Your task to perform on an android device: Open Chrome and go to the settings page Image 0: 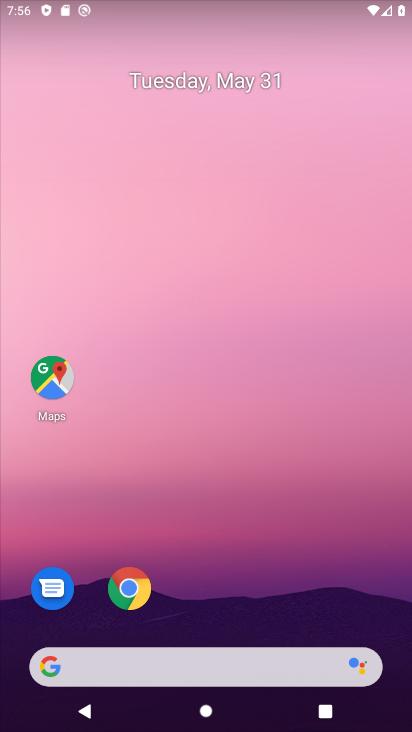
Step 0: drag from (243, 509) to (256, 165)
Your task to perform on an android device: Open Chrome and go to the settings page Image 1: 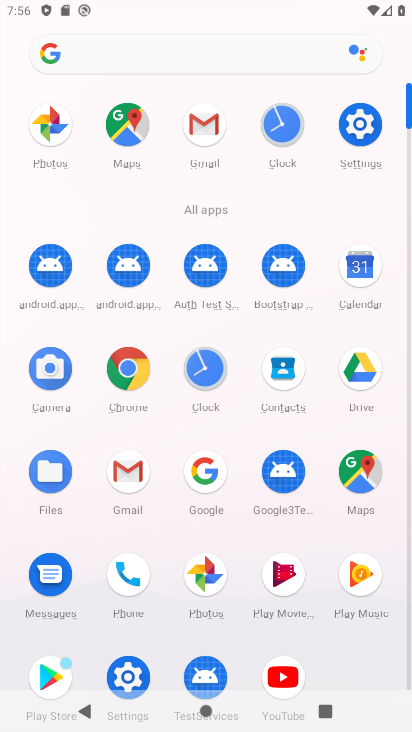
Step 1: click (119, 370)
Your task to perform on an android device: Open Chrome and go to the settings page Image 2: 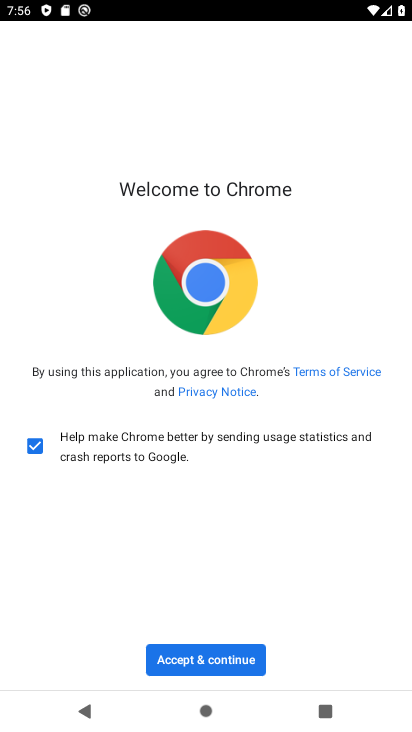
Step 2: click (191, 657)
Your task to perform on an android device: Open Chrome and go to the settings page Image 3: 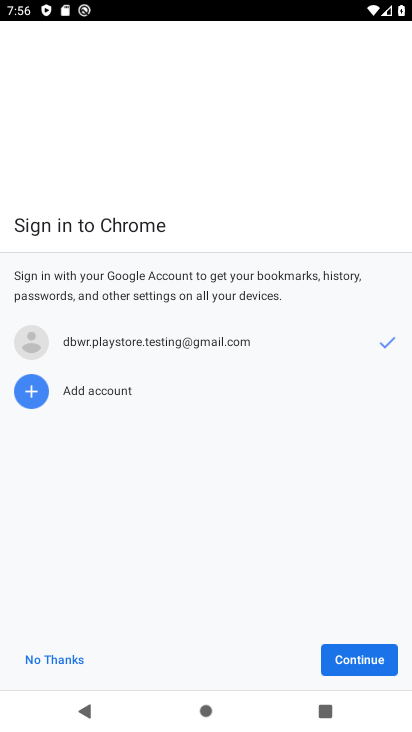
Step 3: click (348, 662)
Your task to perform on an android device: Open Chrome and go to the settings page Image 4: 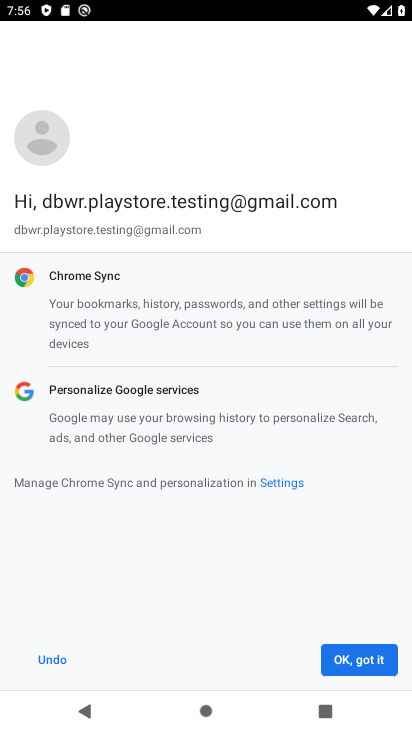
Step 4: click (349, 661)
Your task to perform on an android device: Open Chrome and go to the settings page Image 5: 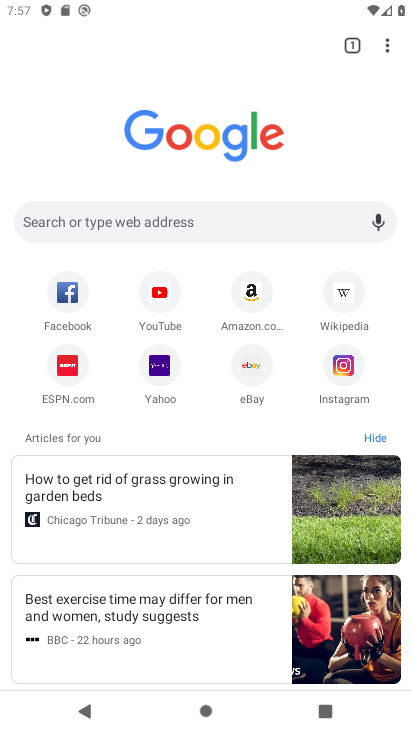
Step 5: click (388, 40)
Your task to perform on an android device: Open Chrome and go to the settings page Image 6: 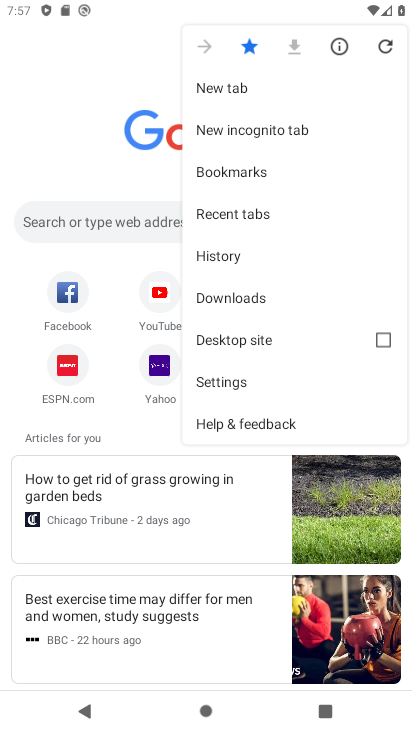
Step 6: click (231, 380)
Your task to perform on an android device: Open Chrome and go to the settings page Image 7: 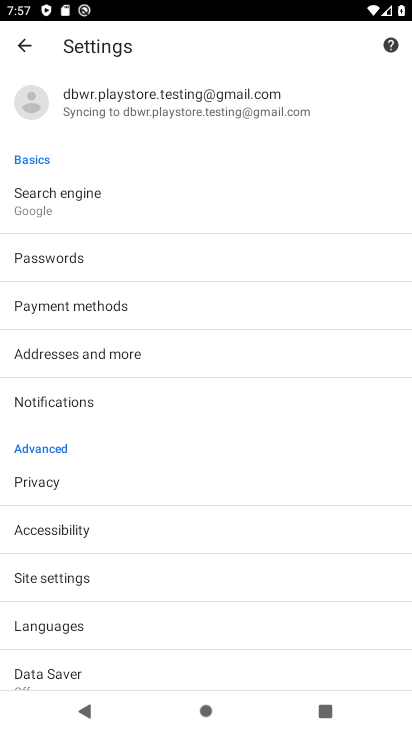
Step 7: task complete